Your task to perform on an android device: turn off sleep mode Image 0: 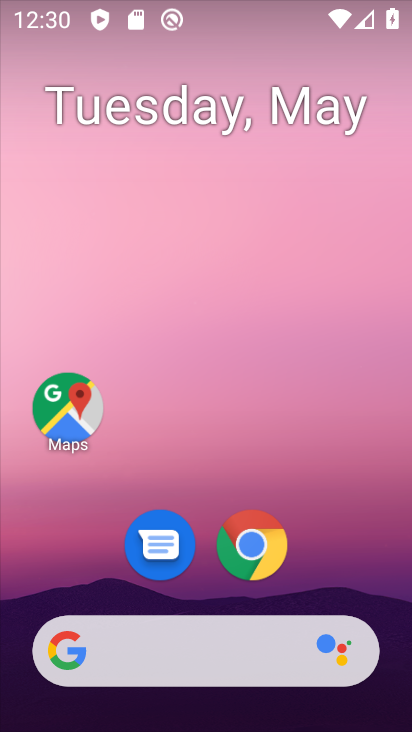
Step 0: drag from (327, 552) to (353, 116)
Your task to perform on an android device: turn off sleep mode Image 1: 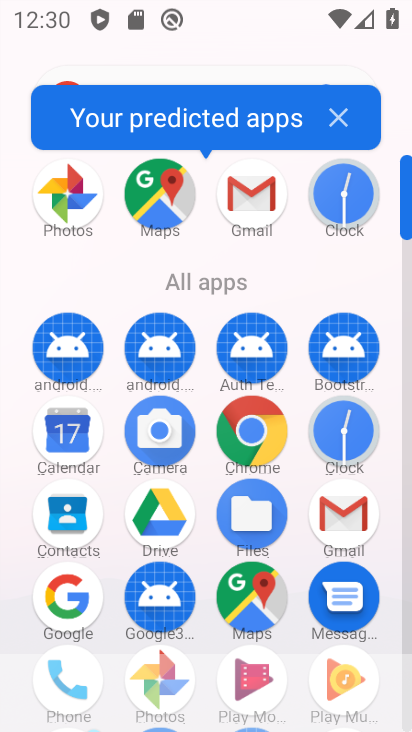
Step 1: drag from (200, 585) to (243, 247)
Your task to perform on an android device: turn off sleep mode Image 2: 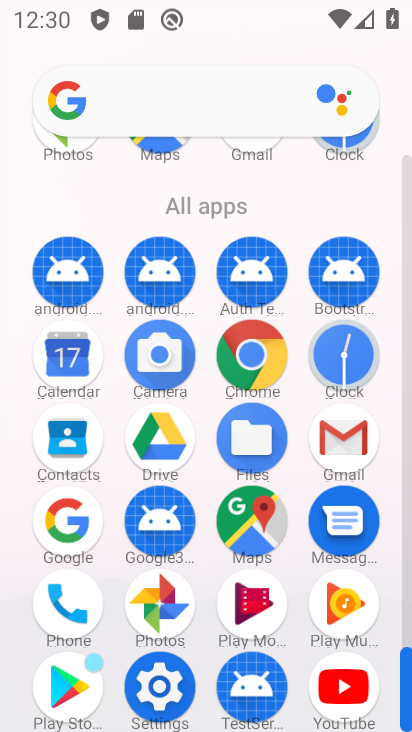
Step 2: click (147, 684)
Your task to perform on an android device: turn off sleep mode Image 3: 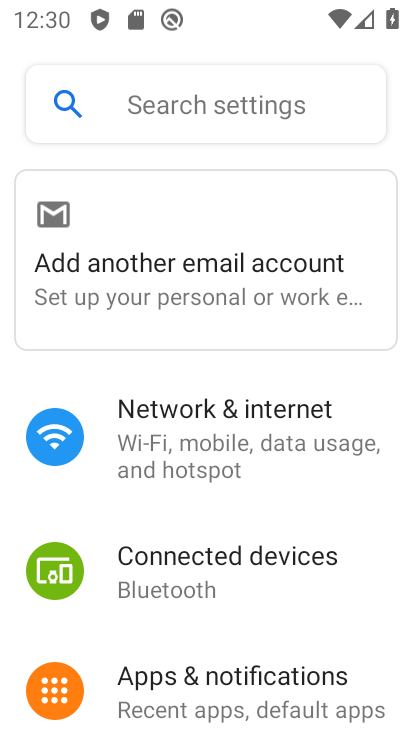
Step 3: click (131, 122)
Your task to perform on an android device: turn off sleep mode Image 4: 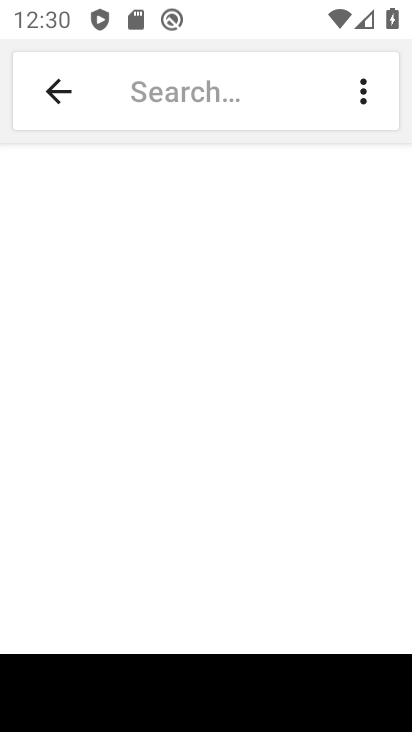
Step 4: type "sleep mode"
Your task to perform on an android device: turn off sleep mode Image 5: 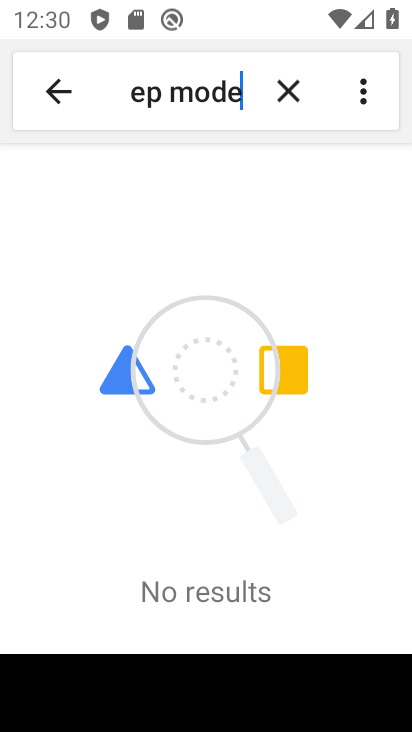
Step 5: task complete